Your task to perform on an android device: Go to display settings Image 0: 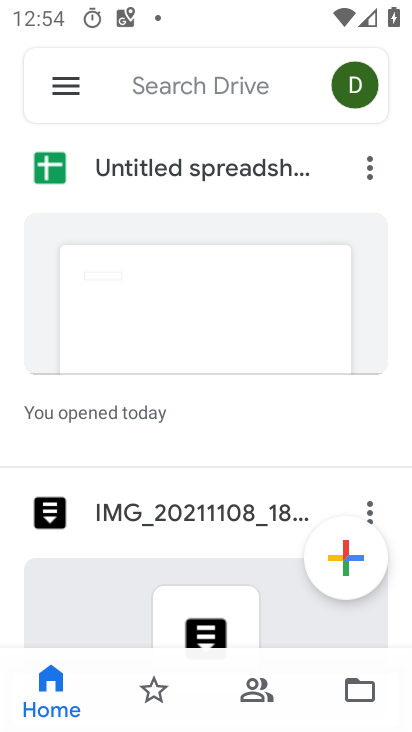
Step 0: press home button
Your task to perform on an android device: Go to display settings Image 1: 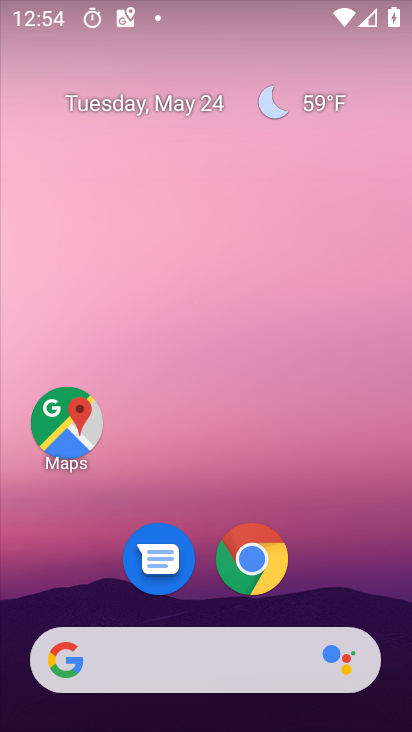
Step 1: drag from (392, 444) to (373, 236)
Your task to perform on an android device: Go to display settings Image 2: 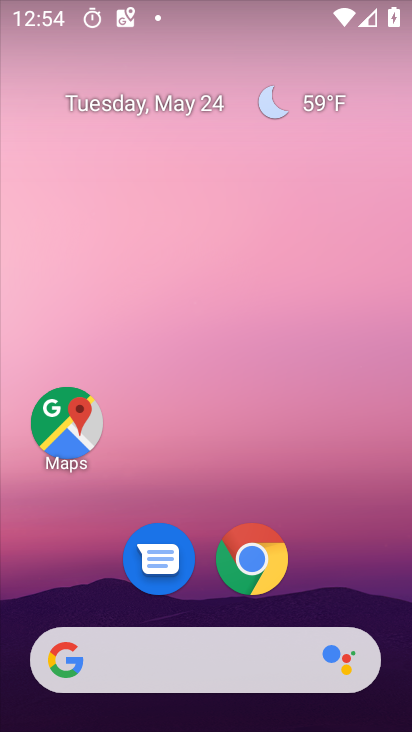
Step 2: drag from (397, 672) to (363, 180)
Your task to perform on an android device: Go to display settings Image 3: 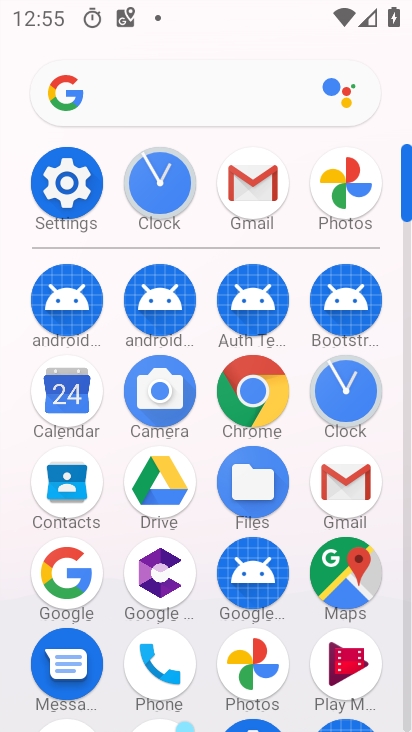
Step 3: click (75, 182)
Your task to perform on an android device: Go to display settings Image 4: 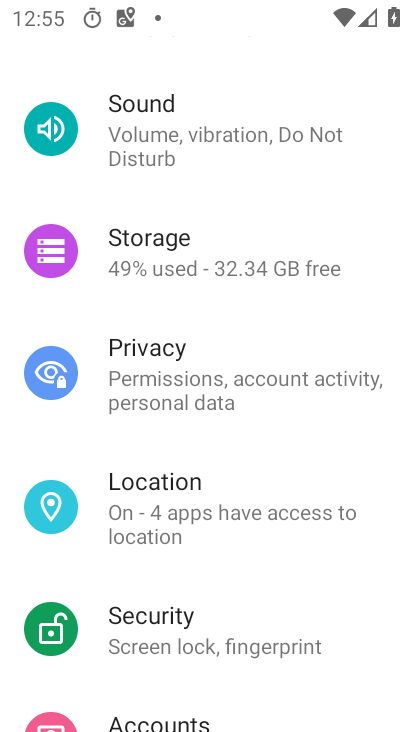
Step 4: drag from (363, 100) to (385, 608)
Your task to perform on an android device: Go to display settings Image 5: 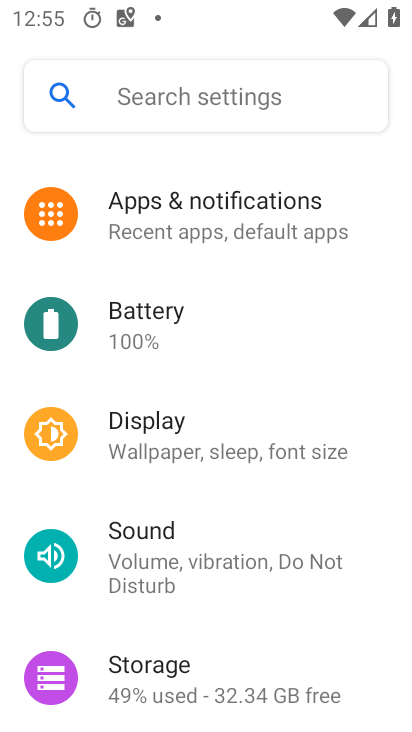
Step 5: click (169, 434)
Your task to perform on an android device: Go to display settings Image 6: 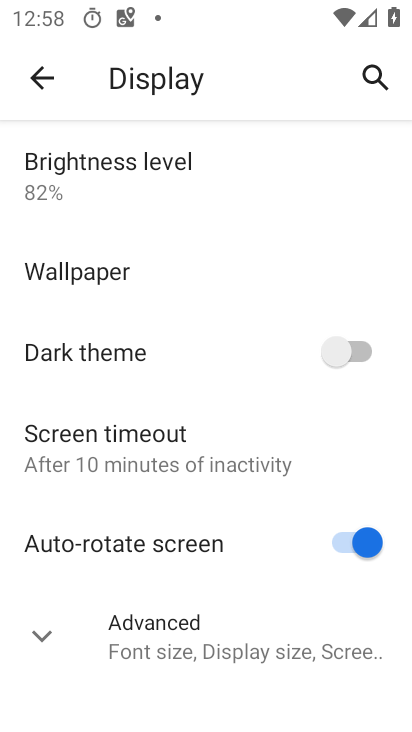
Step 6: task complete